Your task to perform on an android device: open a bookmark in the chrome app Image 0: 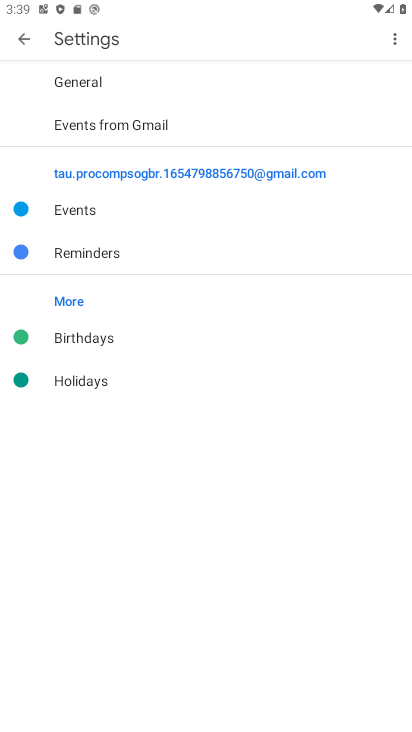
Step 0: press home button
Your task to perform on an android device: open a bookmark in the chrome app Image 1: 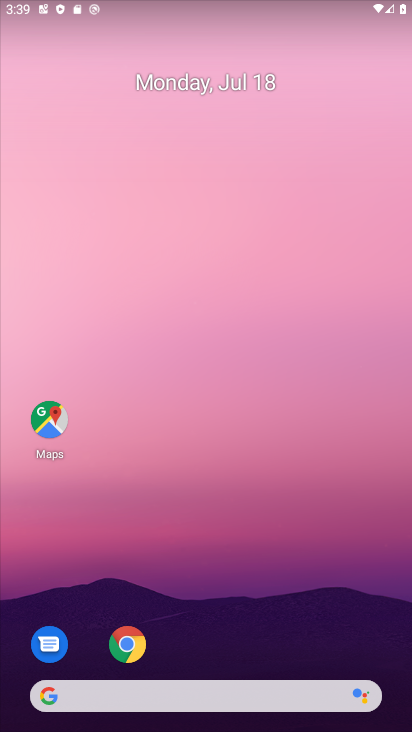
Step 1: click (129, 646)
Your task to perform on an android device: open a bookmark in the chrome app Image 2: 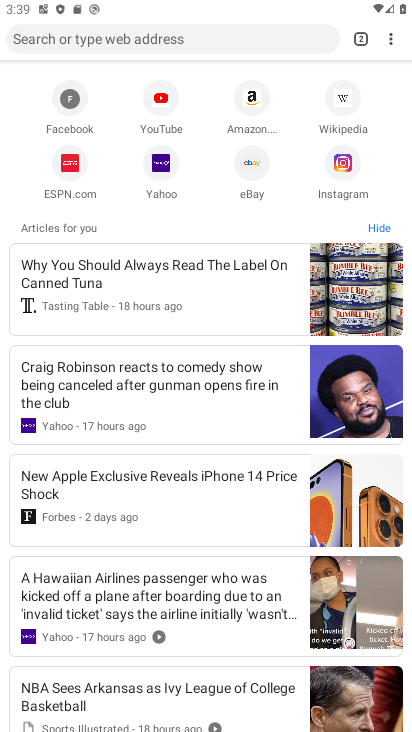
Step 2: click (389, 45)
Your task to perform on an android device: open a bookmark in the chrome app Image 3: 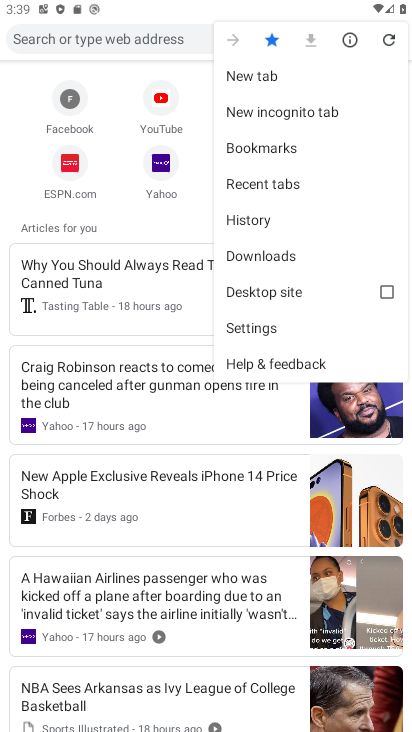
Step 3: click (264, 148)
Your task to perform on an android device: open a bookmark in the chrome app Image 4: 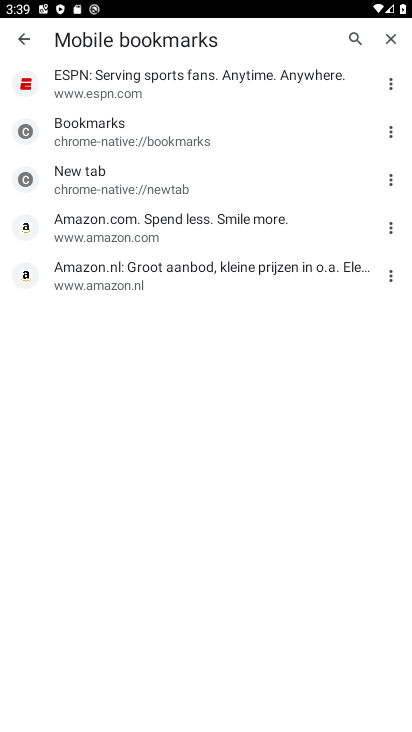
Step 4: task complete